Your task to perform on an android device: Go to Google Image 0: 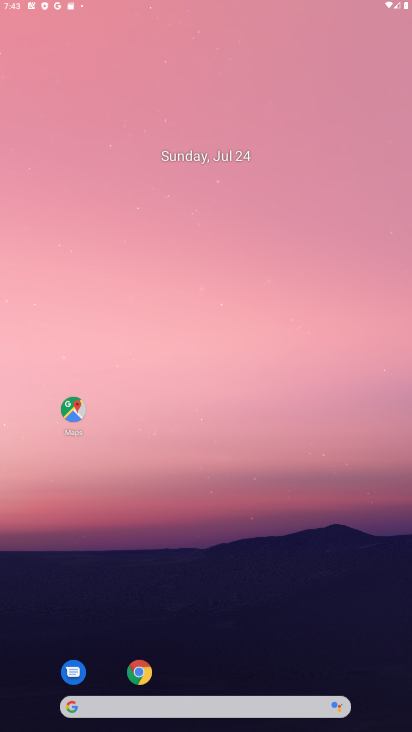
Step 0: click (138, 671)
Your task to perform on an android device: Go to Google Image 1: 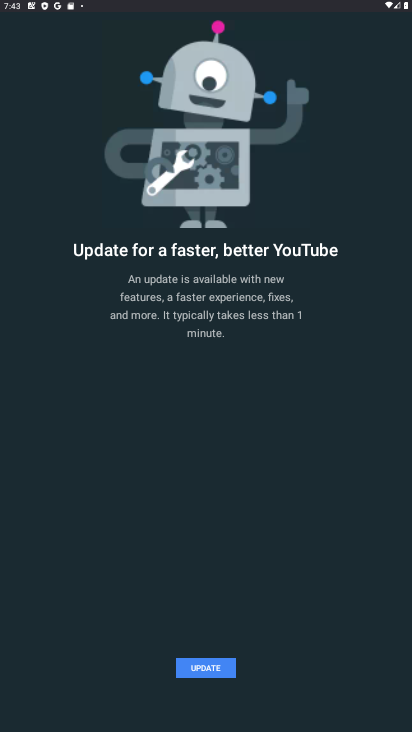
Step 1: press home button
Your task to perform on an android device: Go to Google Image 2: 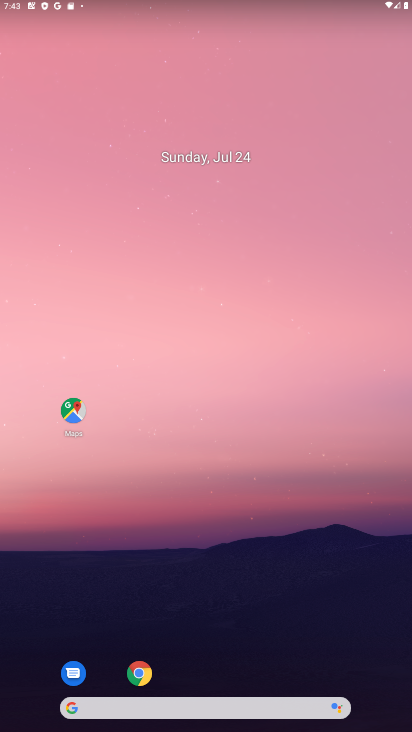
Step 2: click (116, 710)
Your task to perform on an android device: Go to Google Image 3: 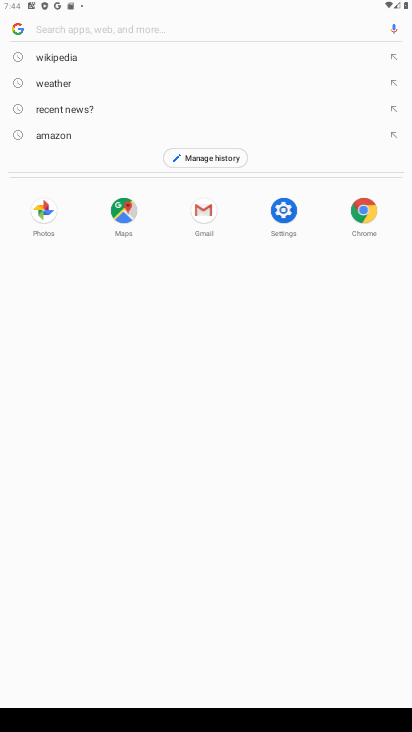
Step 3: task complete